Your task to perform on an android device: Open CNN.com Image 0: 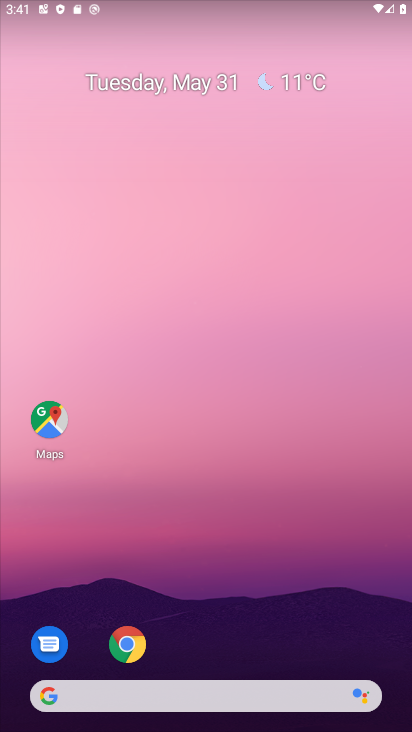
Step 0: click (272, 627)
Your task to perform on an android device: Open CNN.com Image 1: 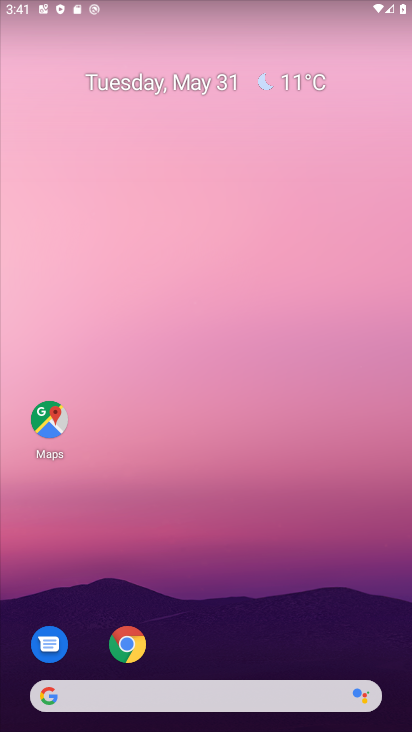
Step 1: drag from (279, 625) to (259, 81)
Your task to perform on an android device: Open CNN.com Image 2: 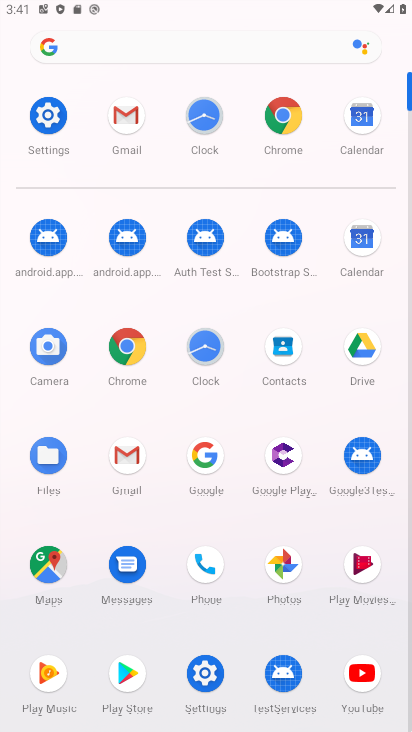
Step 2: click (277, 114)
Your task to perform on an android device: Open CNN.com Image 3: 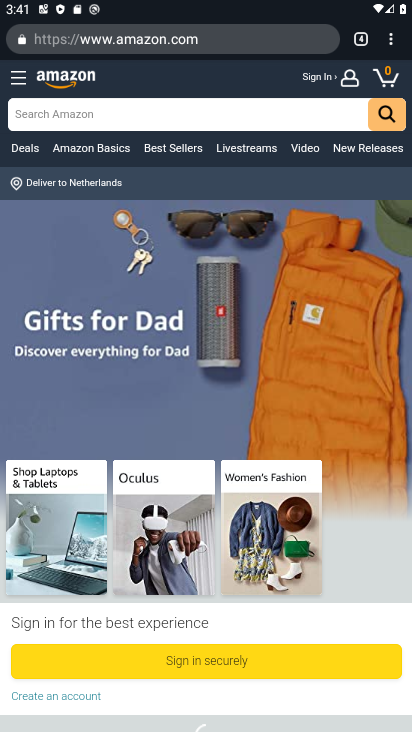
Step 3: click (361, 37)
Your task to perform on an android device: Open CNN.com Image 4: 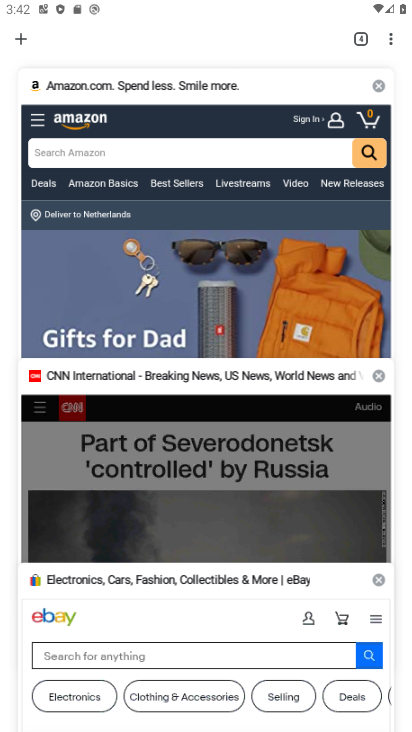
Step 4: click (56, 385)
Your task to perform on an android device: Open CNN.com Image 5: 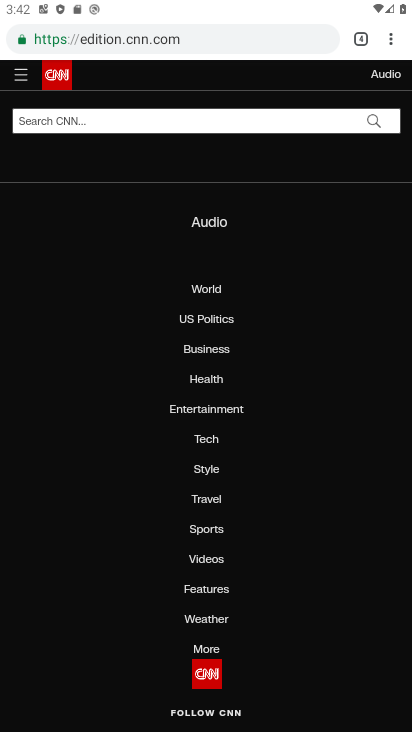
Step 5: task complete